Your task to perform on an android device: turn on sleep mode Image 0: 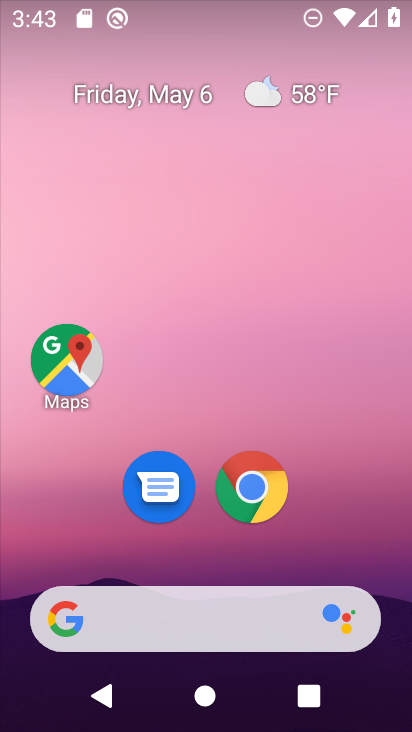
Step 0: drag from (318, 556) to (328, 22)
Your task to perform on an android device: turn on sleep mode Image 1: 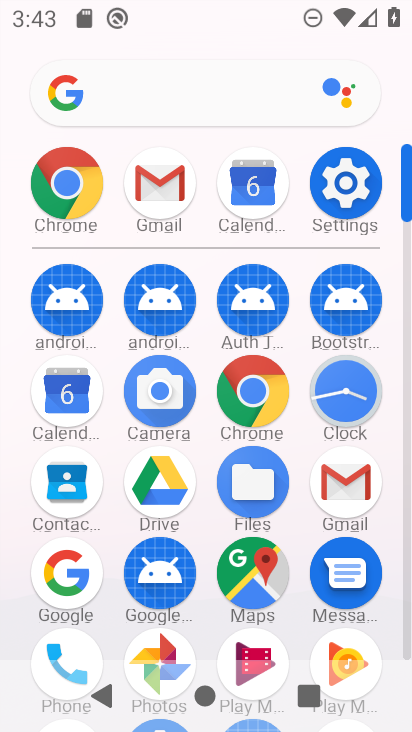
Step 1: click (354, 174)
Your task to perform on an android device: turn on sleep mode Image 2: 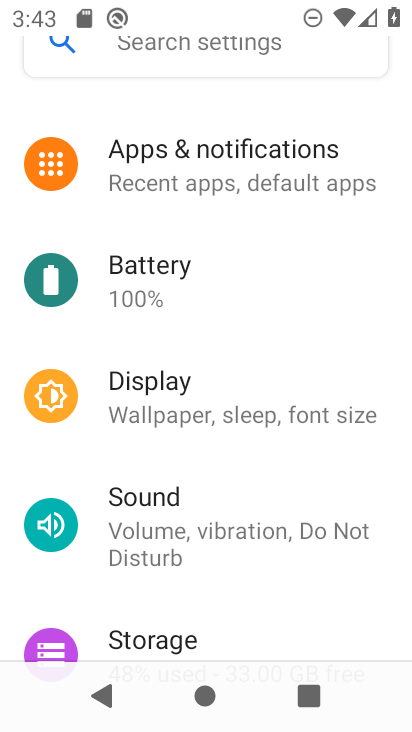
Step 2: drag from (242, 585) to (269, 404)
Your task to perform on an android device: turn on sleep mode Image 3: 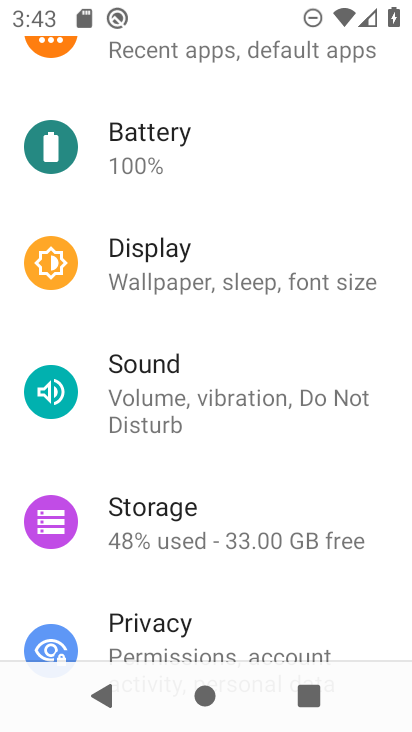
Step 3: drag from (263, 529) to (287, 277)
Your task to perform on an android device: turn on sleep mode Image 4: 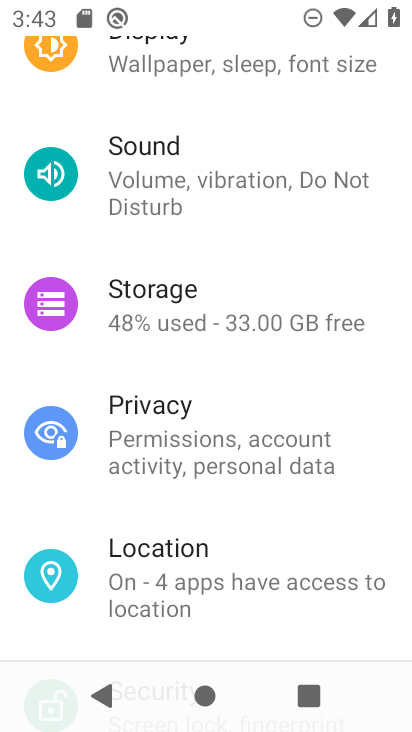
Step 4: drag from (241, 444) to (243, 310)
Your task to perform on an android device: turn on sleep mode Image 5: 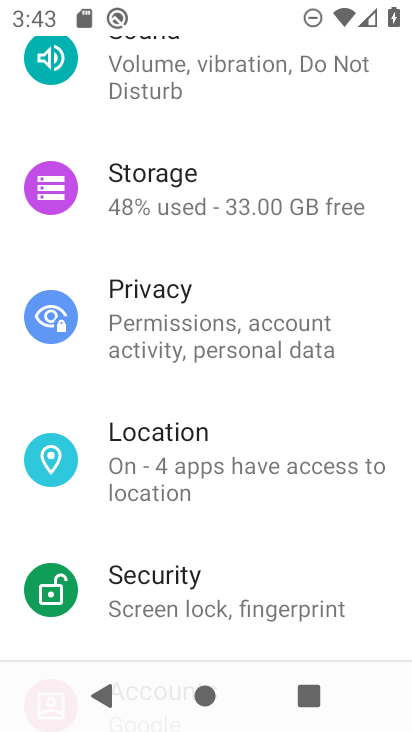
Step 5: drag from (224, 479) to (273, 263)
Your task to perform on an android device: turn on sleep mode Image 6: 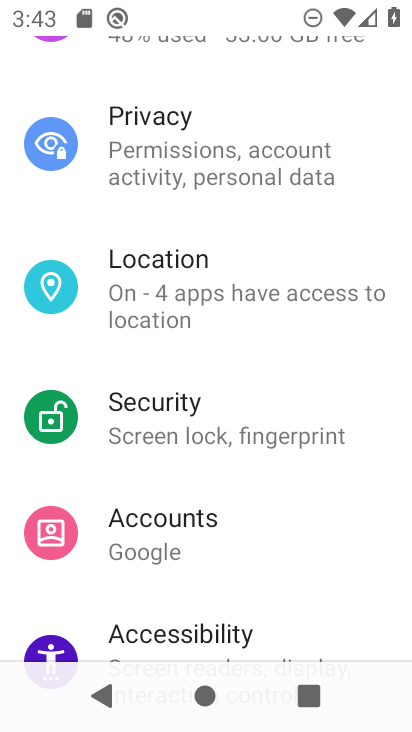
Step 6: drag from (236, 449) to (284, 227)
Your task to perform on an android device: turn on sleep mode Image 7: 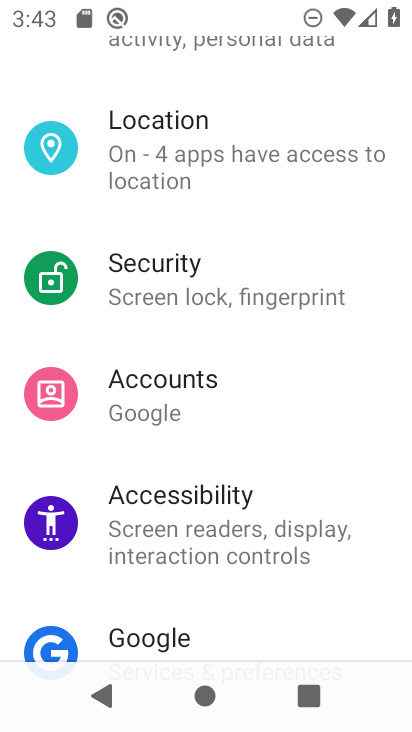
Step 7: drag from (279, 417) to (280, 259)
Your task to perform on an android device: turn on sleep mode Image 8: 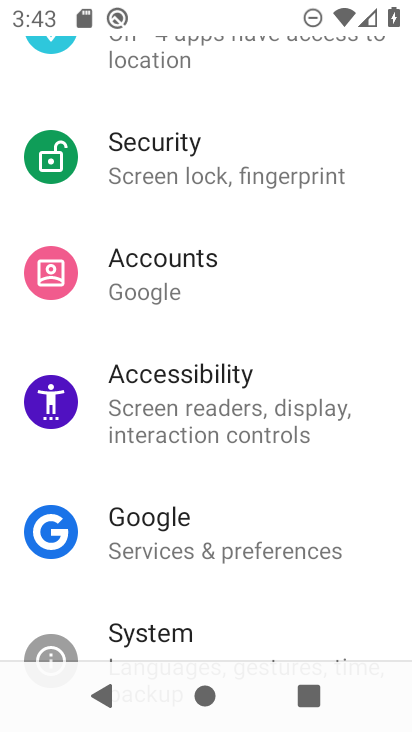
Step 8: drag from (262, 481) to (273, 326)
Your task to perform on an android device: turn on sleep mode Image 9: 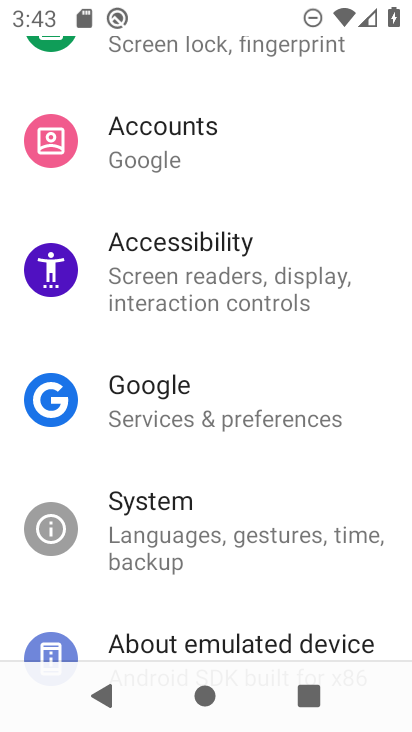
Step 9: drag from (224, 544) to (256, 376)
Your task to perform on an android device: turn on sleep mode Image 10: 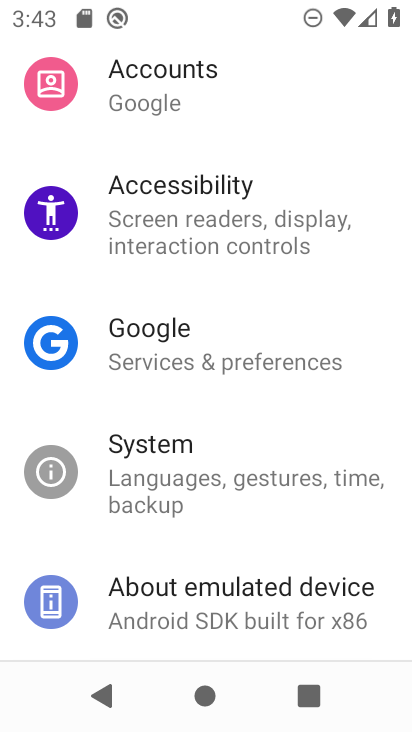
Step 10: drag from (219, 589) to (248, 379)
Your task to perform on an android device: turn on sleep mode Image 11: 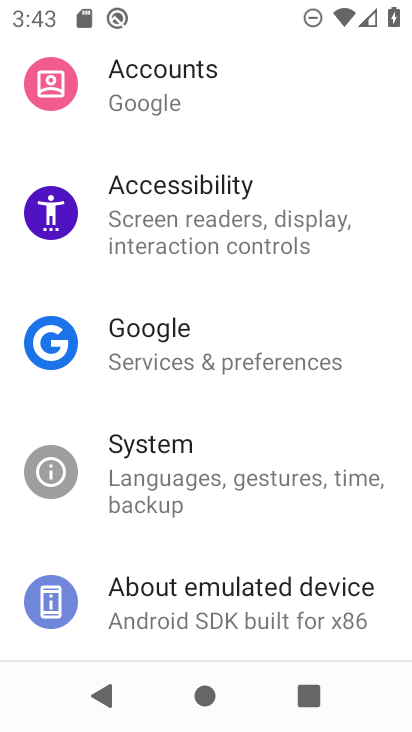
Step 11: drag from (254, 341) to (309, 504)
Your task to perform on an android device: turn on sleep mode Image 12: 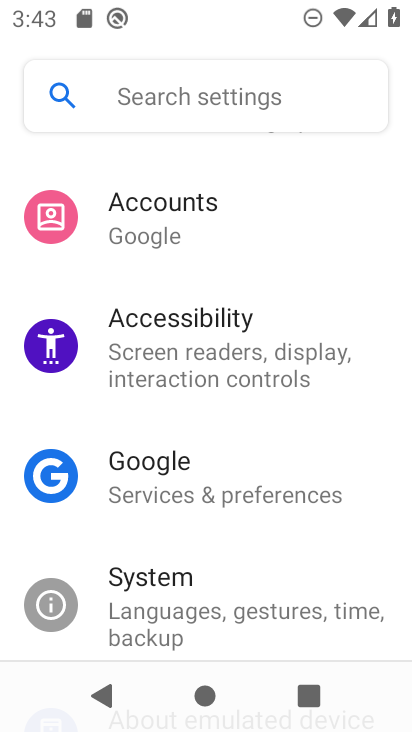
Step 12: drag from (281, 369) to (322, 507)
Your task to perform on an android device: turn on sleep mode Image 13: 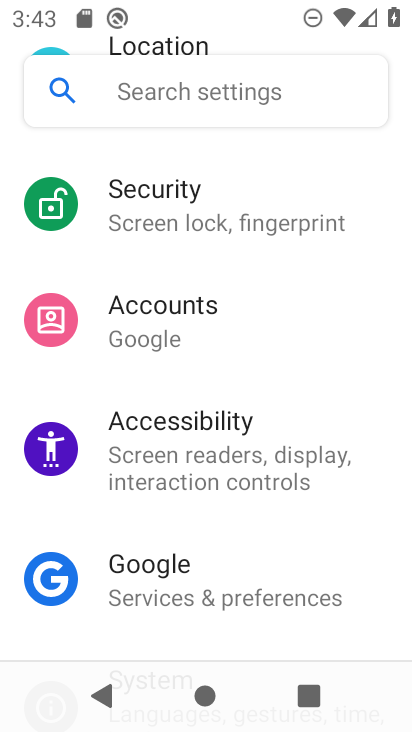
Step 13: drag from (286, 331) to (306, 488)
Your task to perform on an android device: turn on sleep mode Image 14: 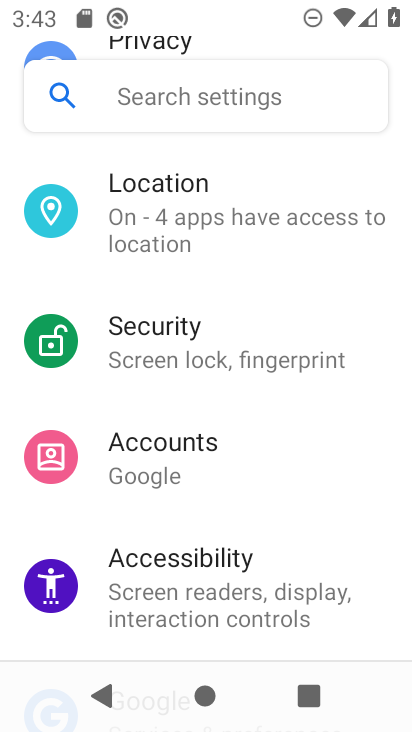
Step 14: drag from (271, 286) to (290, 433)
Your task to perform on an android device: turn on sleep mode Image 15: 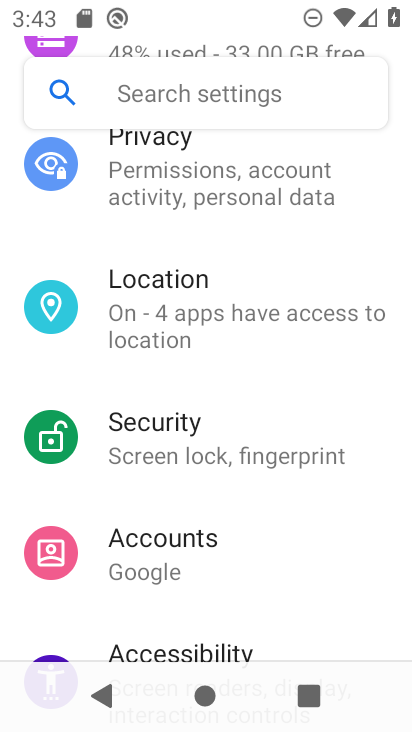
Step 15: drag from (258, 145) to (293, 376)
Your task to perform on an android device: turn on sleep mode Image 16: 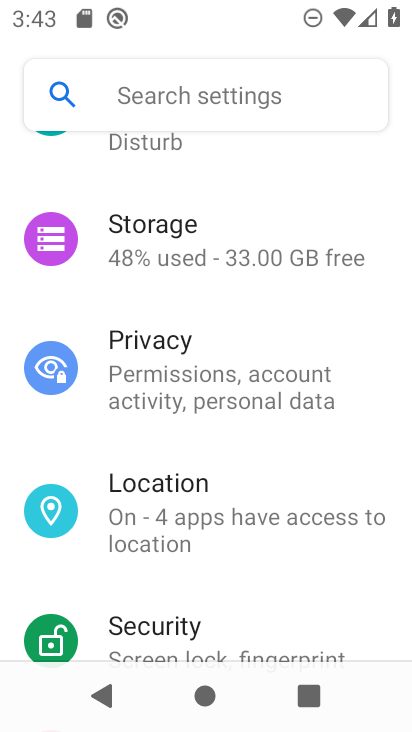
Step 16: drag from (201, 195) to (226, 466)
Your task to perform on an android device: turn on sleep mode Image 17: 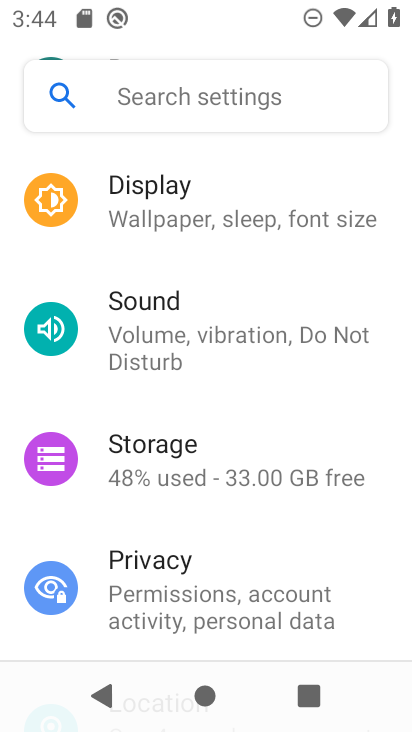
Step 17: drag from (293, 241) to (319, 518)
Your task to perform on an android device: turn on sleep mode Image 18: 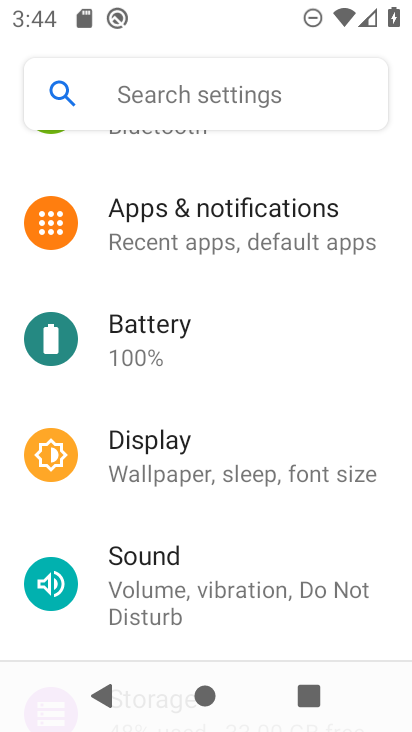
Step 18: click (241, 468)
Your task to perform on an android device: turn on sleep mode Image 19: 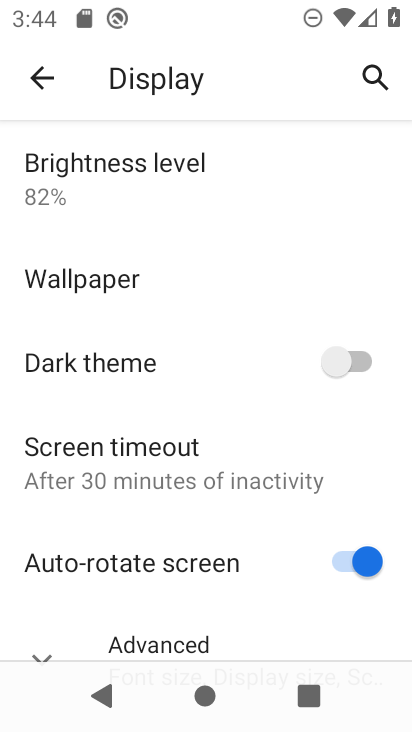
Step 19: drag from (251, 624) to (245, 209)
Your task to perform on an android device: turn on sleep mode Image 20: 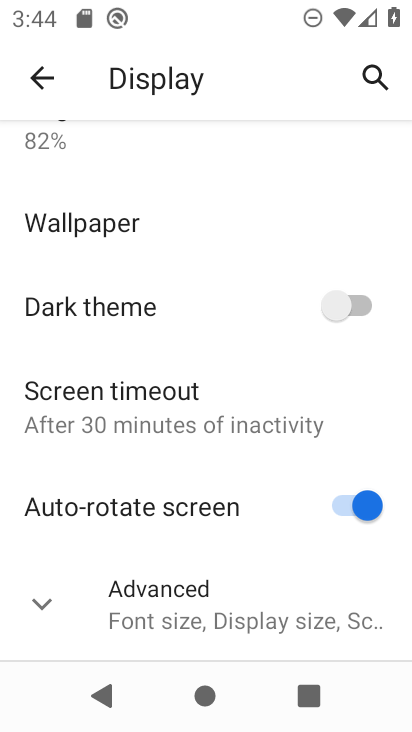
Step 20: click (223, 609)
Your task to perform on an android device: turn on sleep mode Image 21: 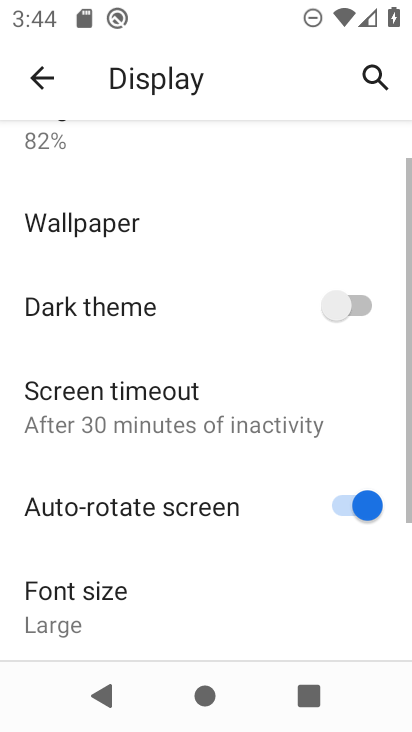
Step 21: task complete